Your task to perform on an android device: Is it going to rain tomorrow? Image 0: 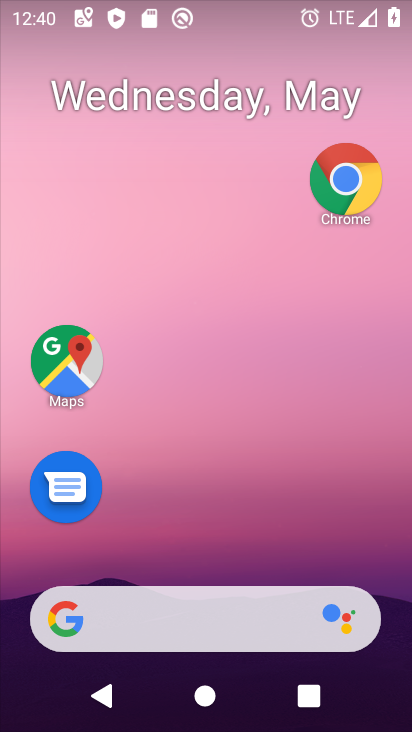
Step 0: drag from (214, 540) to (297, 35)
Your task to perform on an android device: Is it going to rain tomorrow? Image 1: 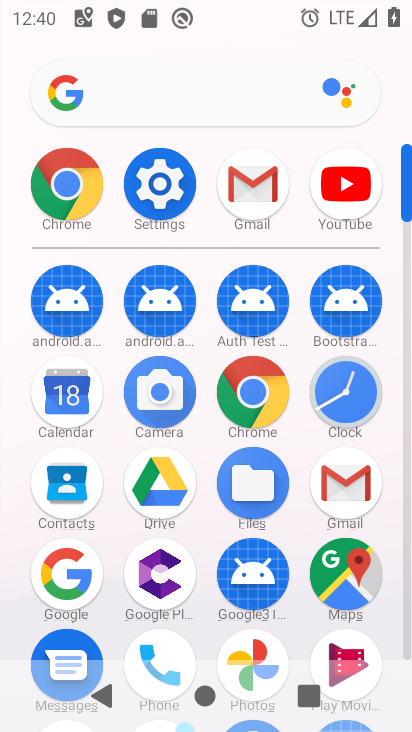
Step 1: click (163, 96)
Your task to perform on an android device: Is it going to rain tomorrow? Image 2: 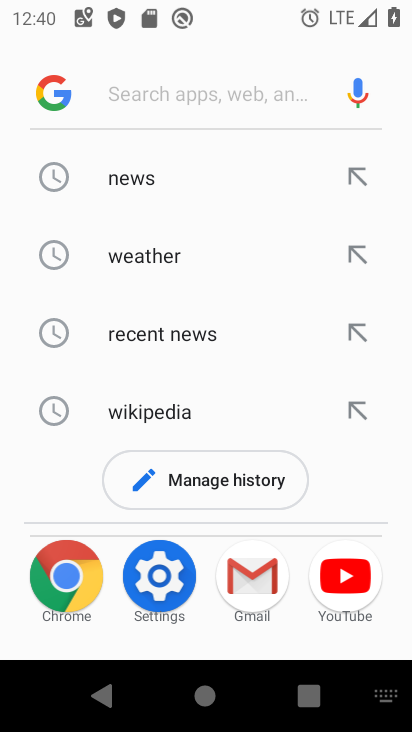
Step 2: type "rain tomorrow"
Your task to perform on an android device: Is it going to rain tomorrow? Image 3: 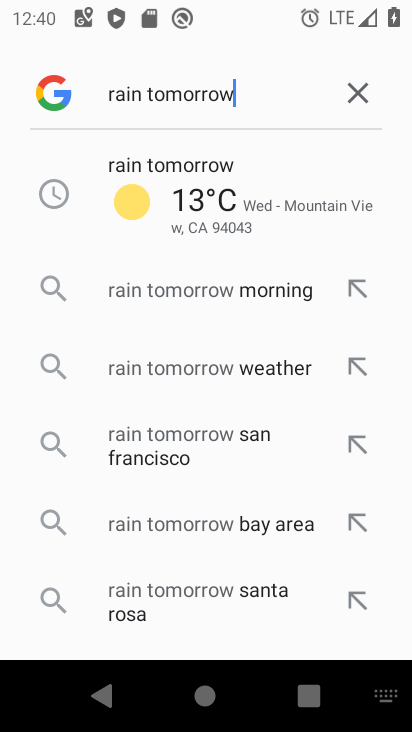
Step 3: click (182, 210)
Your task to perform on an android device: Is it going to rain tomorrow? Image 4: 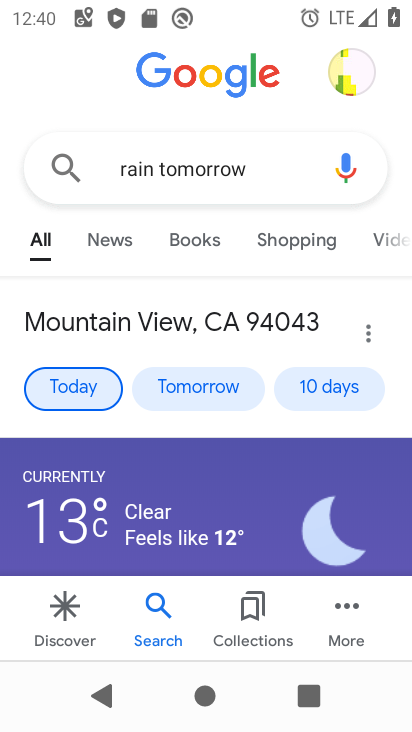
Step 4: task complete